Your task to perform on an android device: change keyboard looks Image 0: 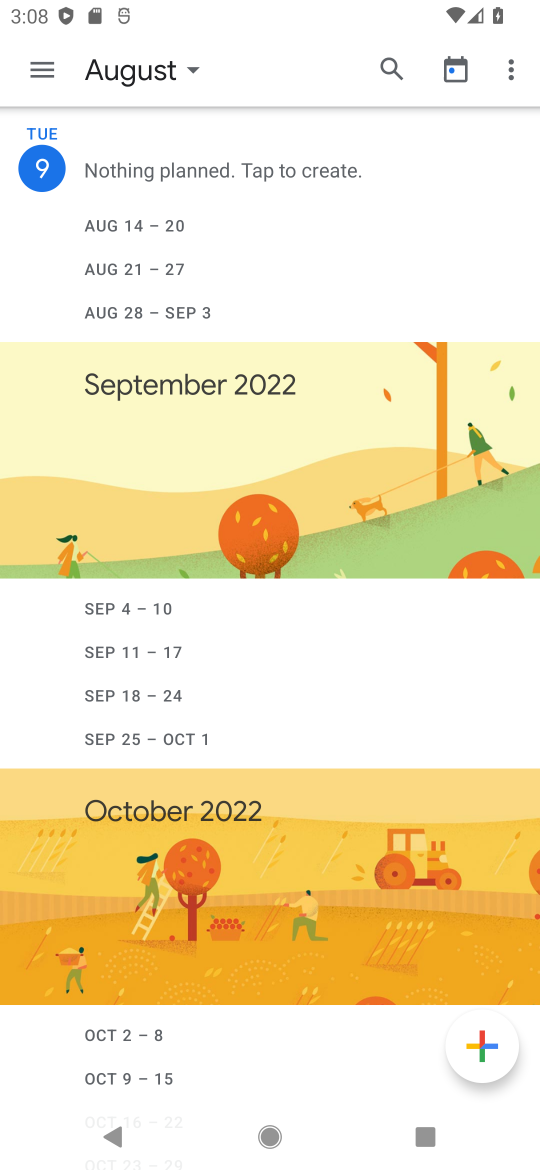
Step 0: press back button
Your task to perform on an android device: change keyboard looks Image 1: 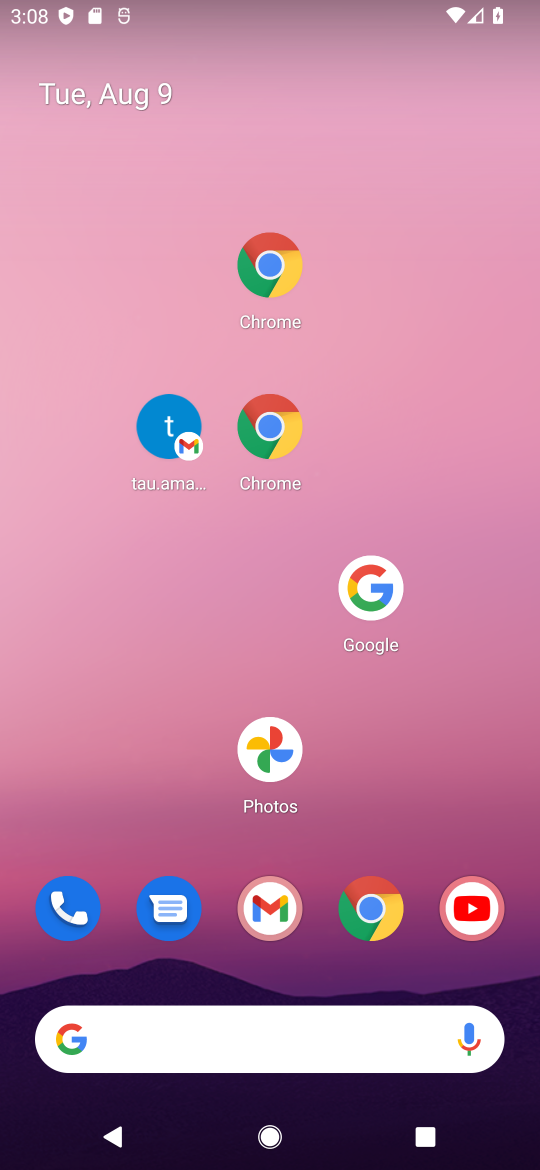
Step 1: drag from (370, 1024) to (220, 284)
Your task to perform on an android device: change keyboard looks Image 2: 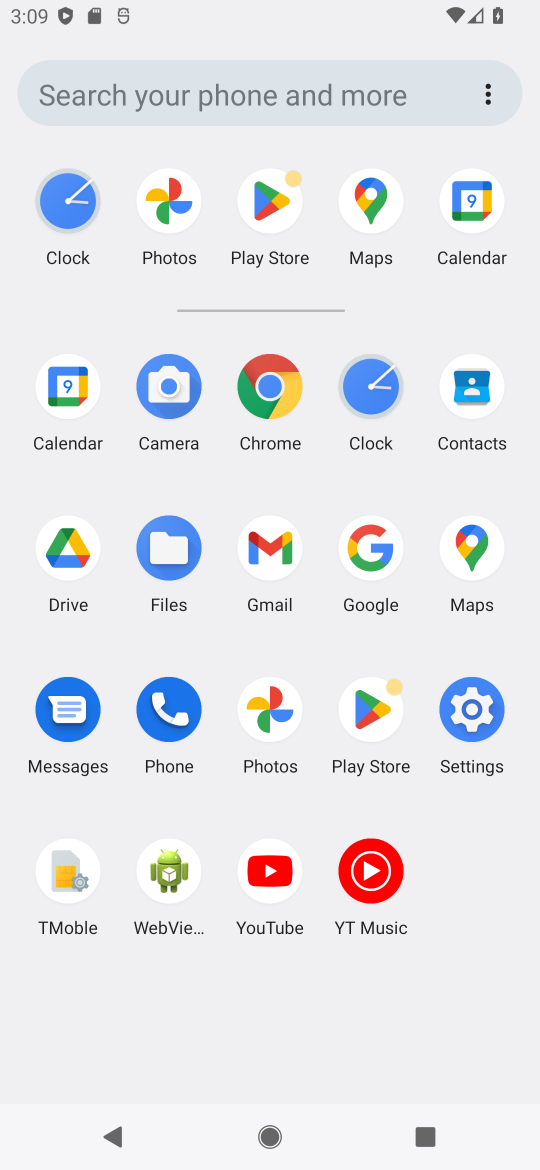
Step 2: click (466, 708)
Your task to perform on an android device: change keyboard looks Image 3: 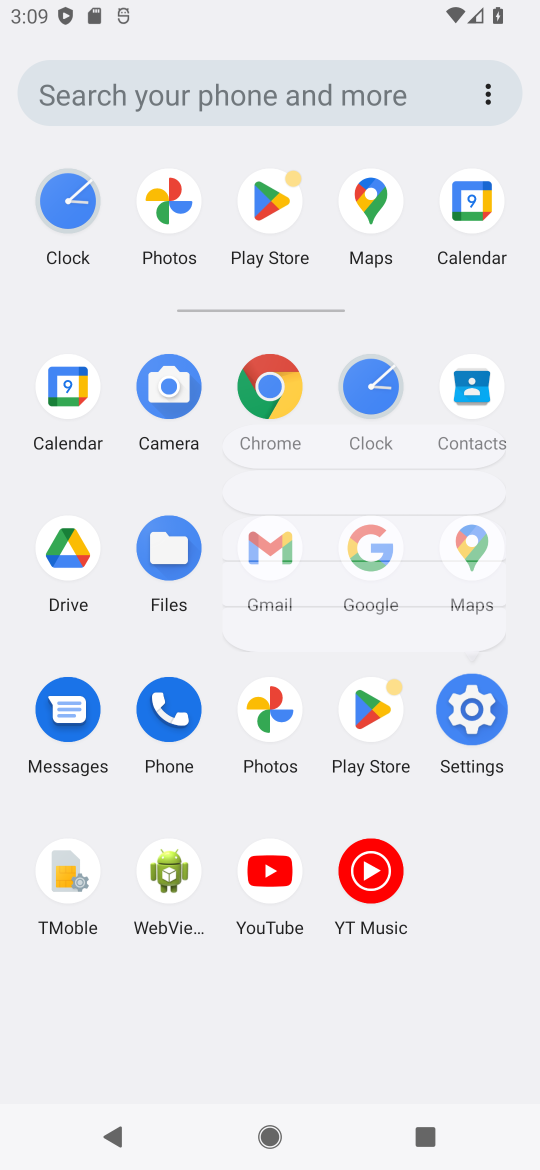
Step 3: click (466, 708)
Your task to perform on an android device: change keyboard looks Image 4: 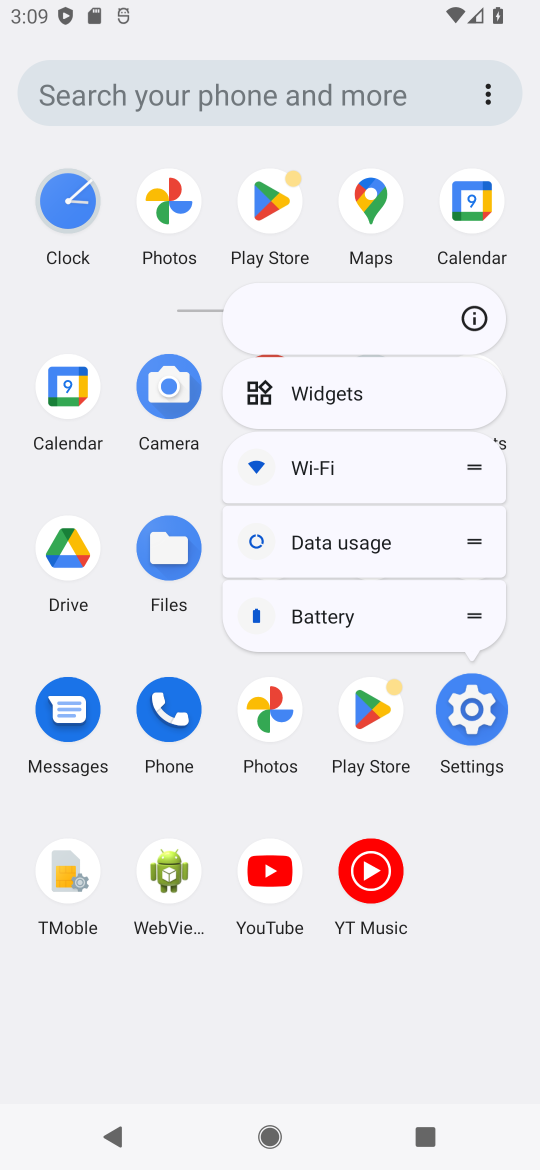
Step 4: click (466, 708)
Your task to perform on an android device: change keyboard looks Image 5: 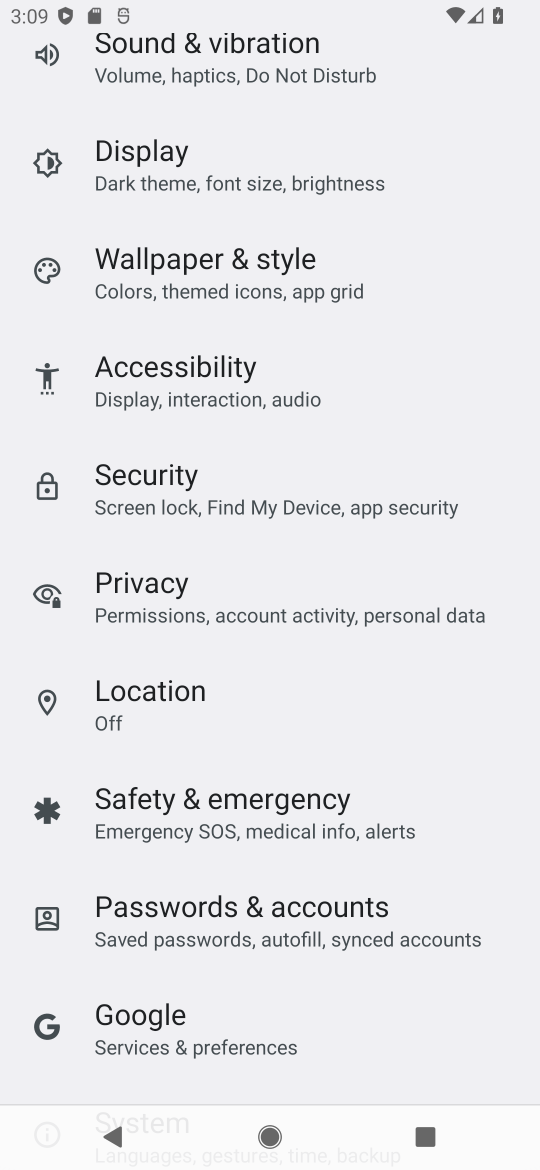
Step 5: click (466, 708)
Your task to perform on an android device: change keyboard looks Image 6: 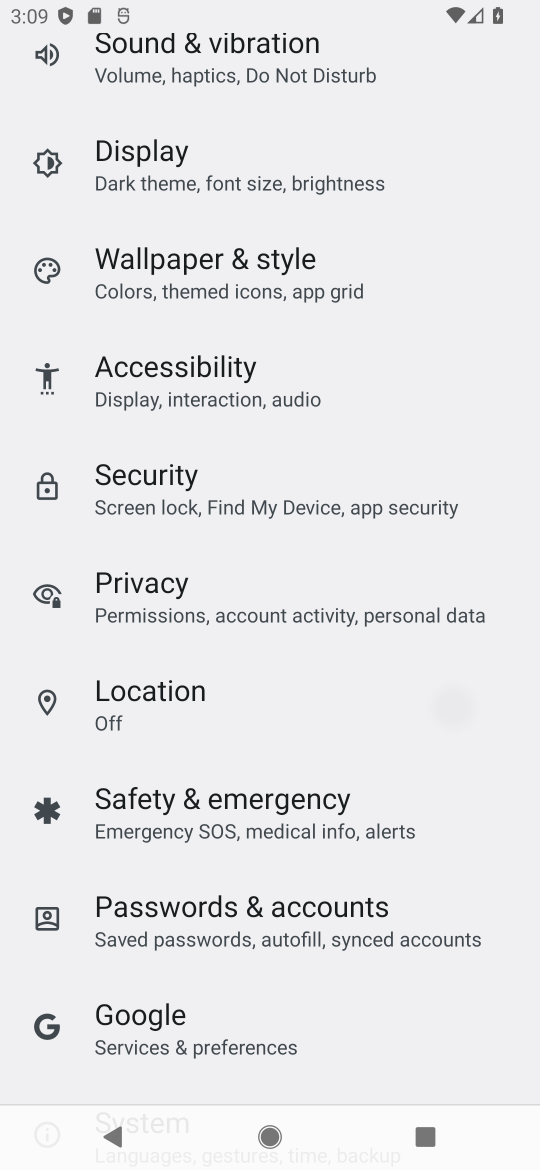
Step 6: click (466, 708)
Your task to perform on an android device: change keyboard looks Image 7: 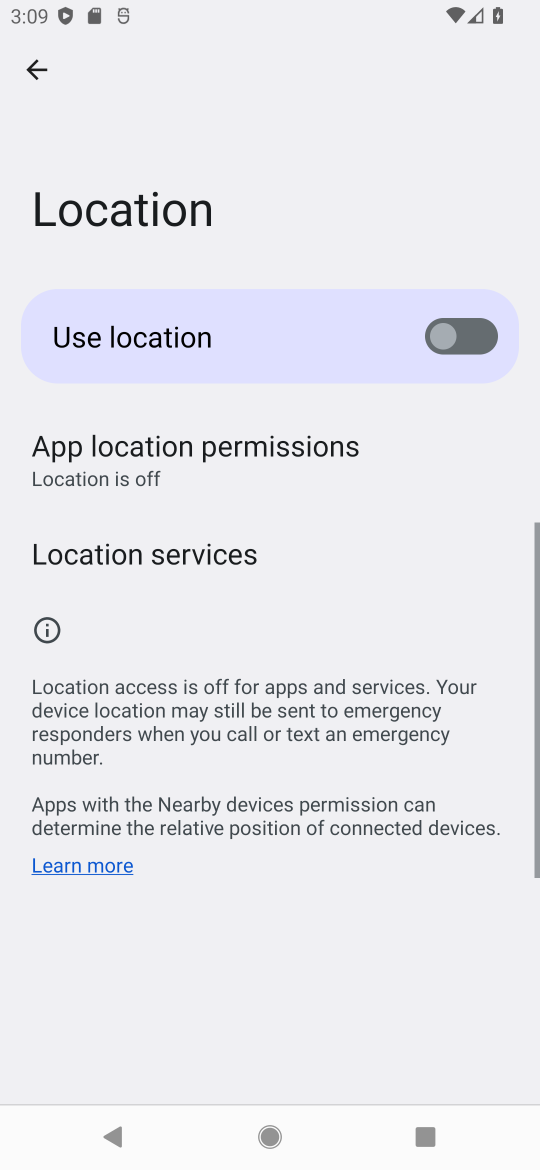
Step 7: drag from (269, 779) to (187, 312)
Your task to perform on an android device: change keyboard looks Image 8: 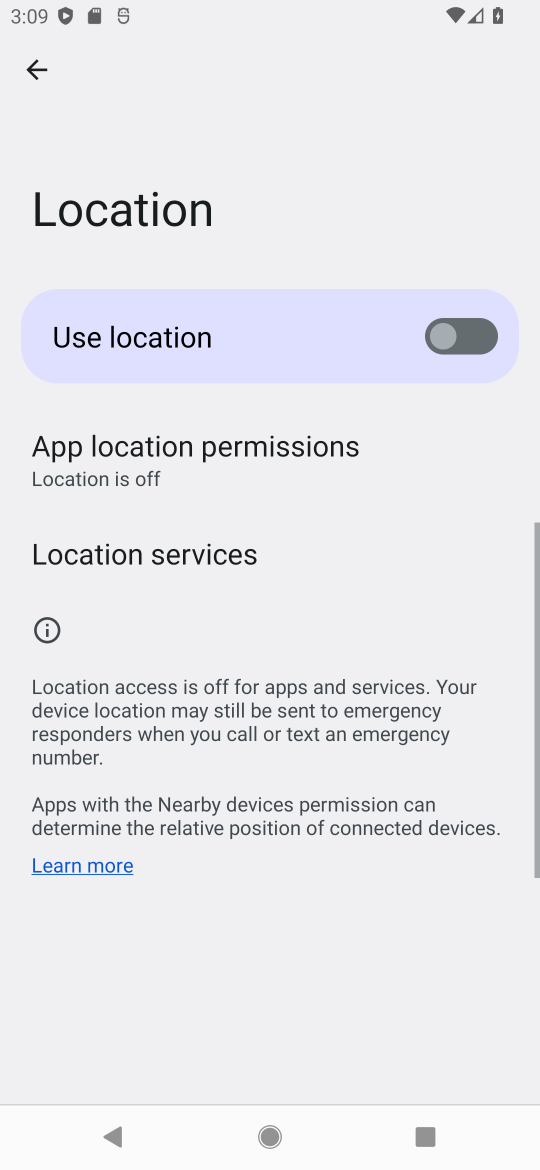
Step 8: click (19, 65)
Your task to perform on an android device: change keyboard looks Image 9: 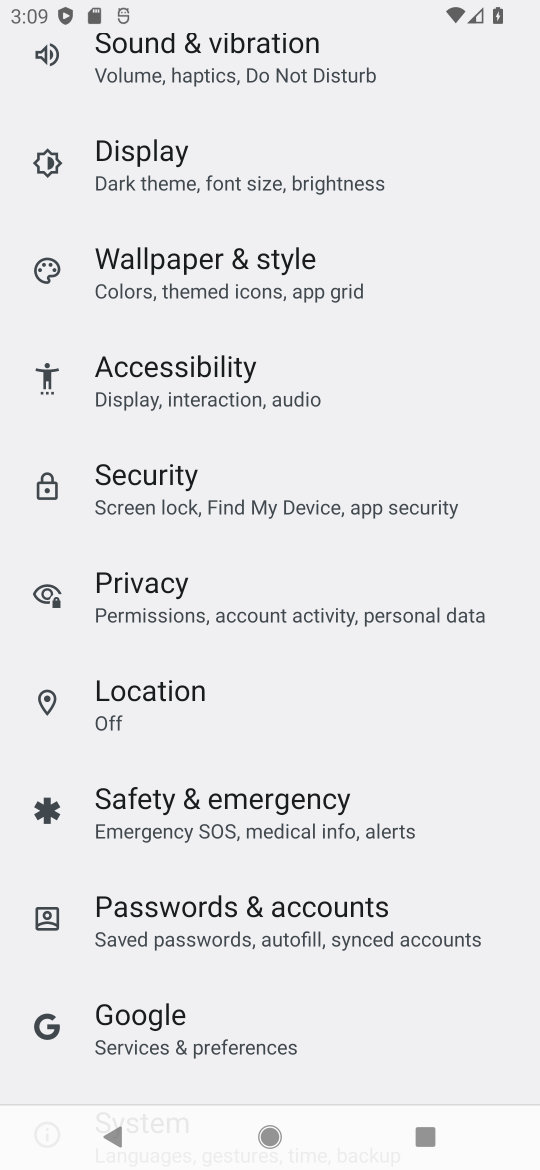
Step 9: drag from (239, 782) to (235, 336)
Your task to perform on an android device: change keyboard looks Image 10: 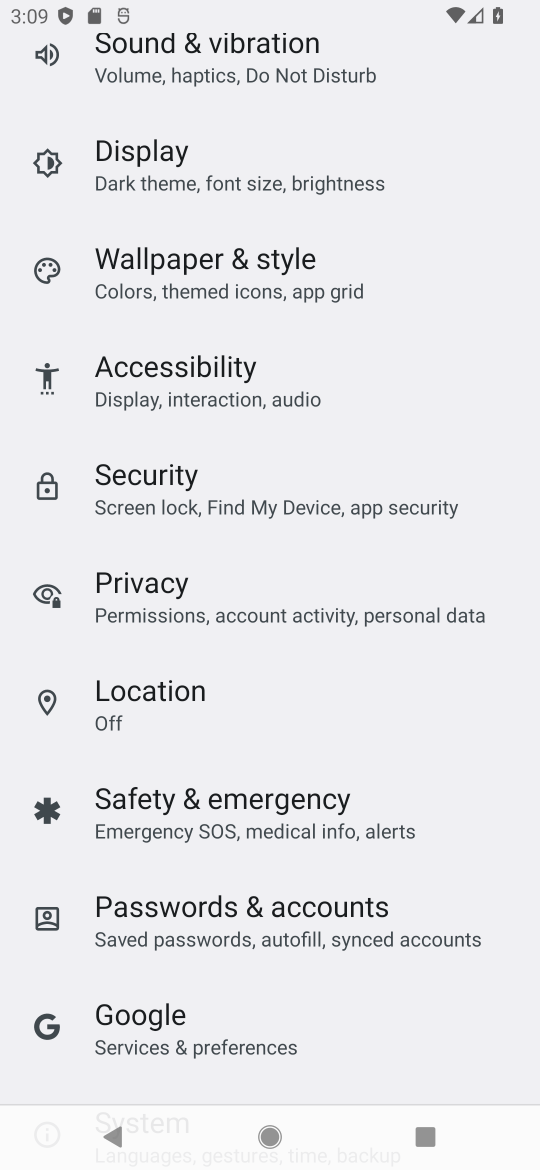
Step 10: drag from (271, 570) to (271, 390)
Your task to perform on an android device: change keyboard looks Image 11: 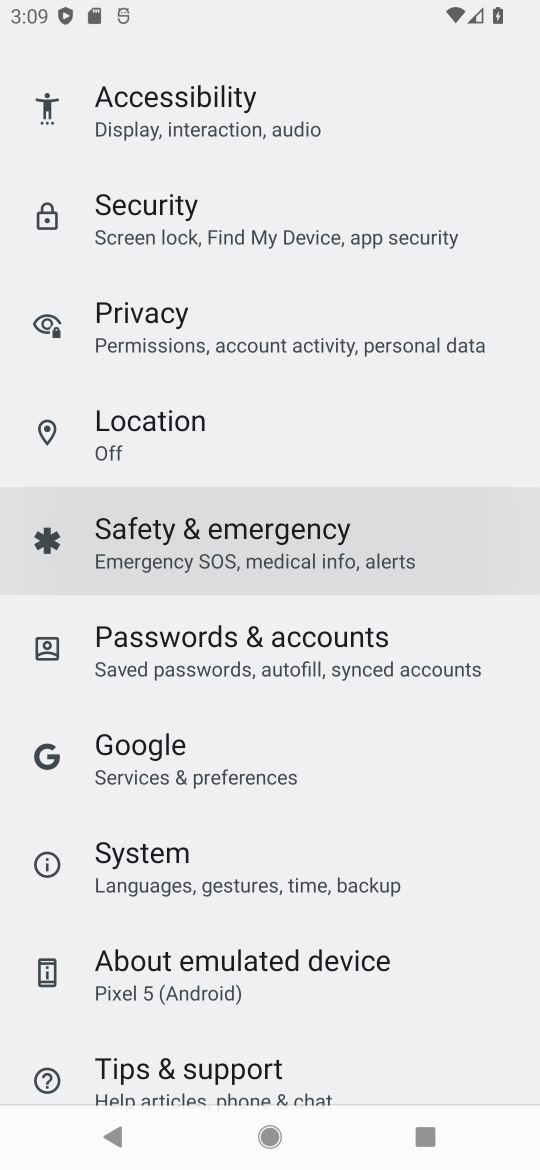
Step 11: drag from (288, 484) to (288, 355)
Your task to perform on an android device: change keyboard looks Image 12: 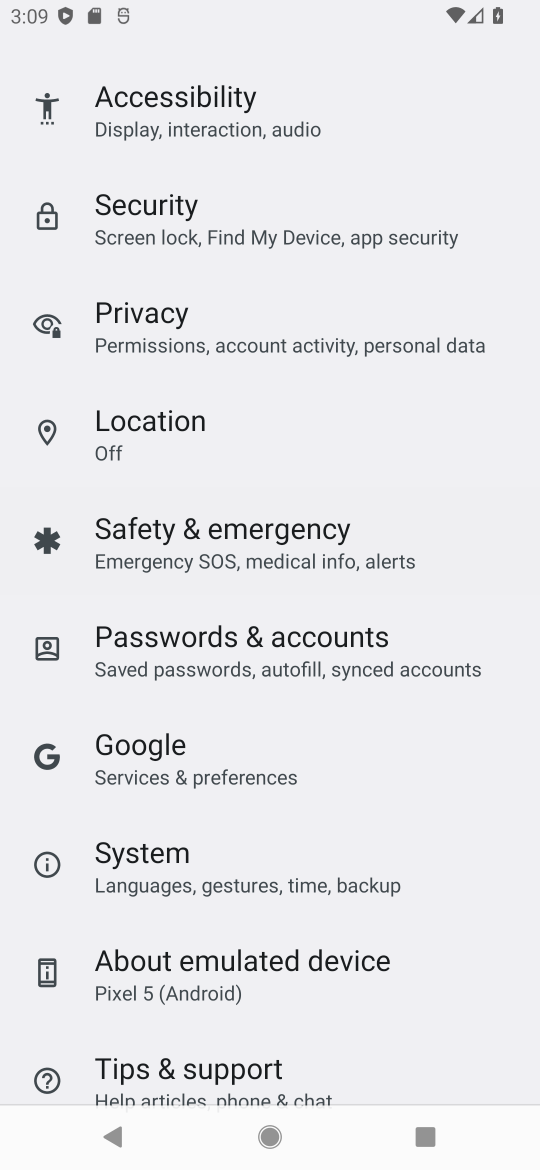
Step 12: drag from (288, 930) to (239, 498)
Your task to perform on an android device: change keyboard looks Image 13: 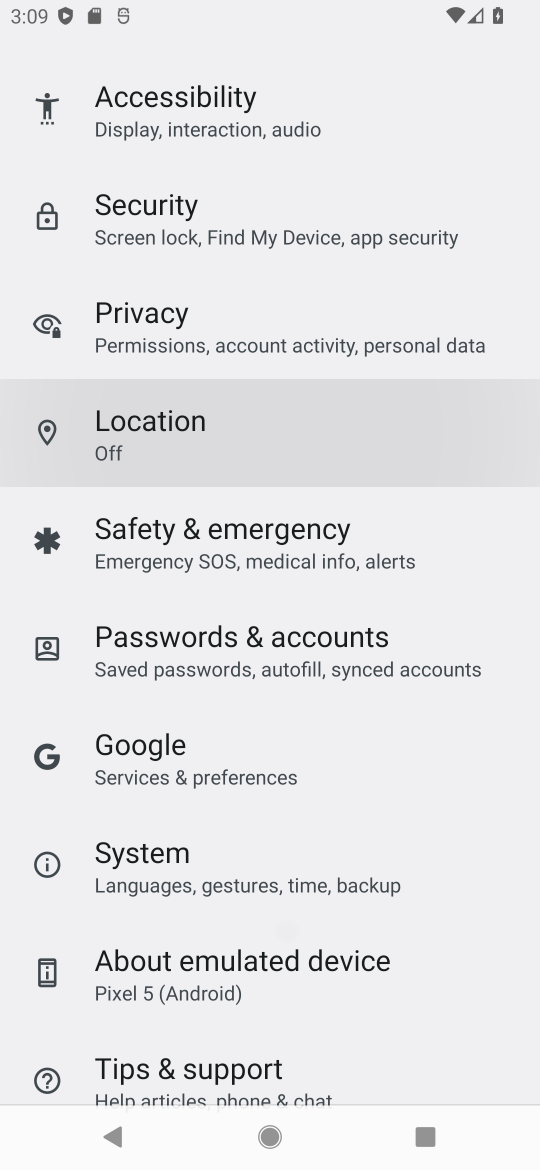
Step 13: drag from (236, 667) to (282, 373)
Your task to perform on an android device: change keyboard looks Image 14: 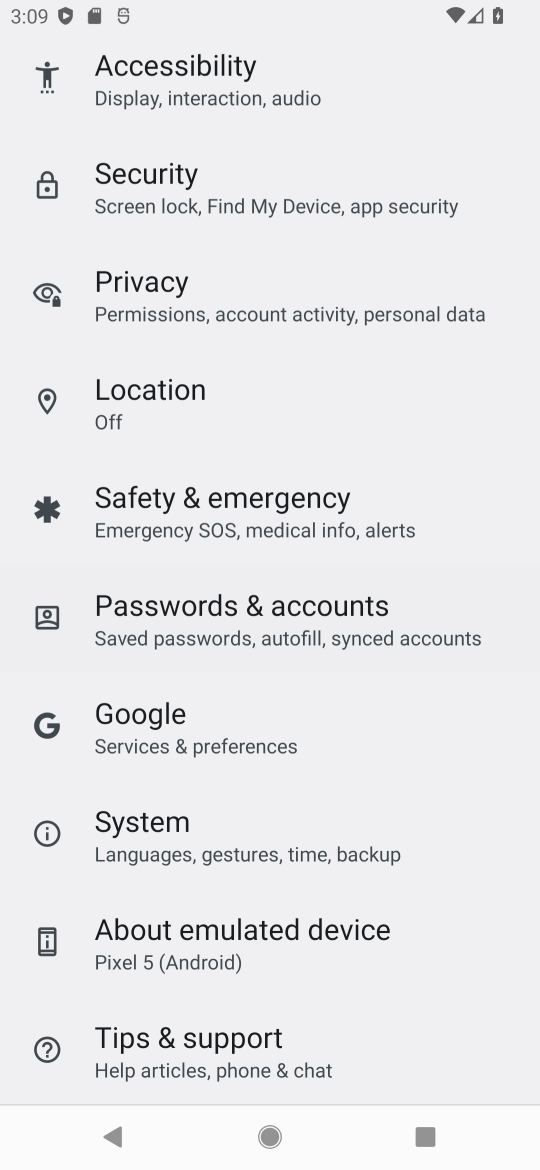
Step 14: drag from (274, 393) to (275, 328)
Your task to perform on an android device: change keyboard looks Image 15: 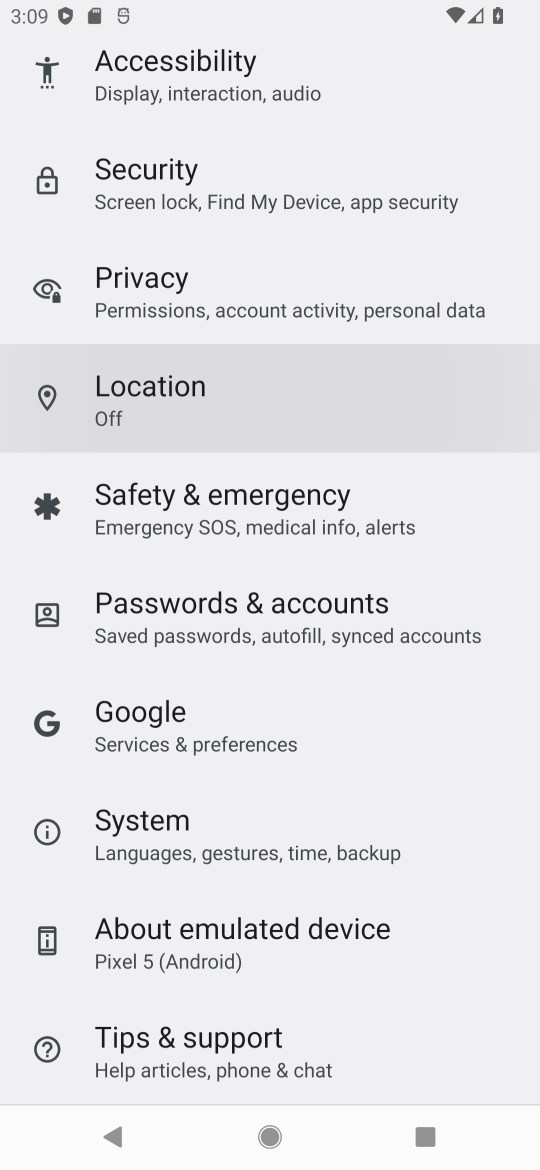
Step 15: drag from (312, 641) to (250, 219)
Your task to perform on an android device: change keyboard looks Image 16: 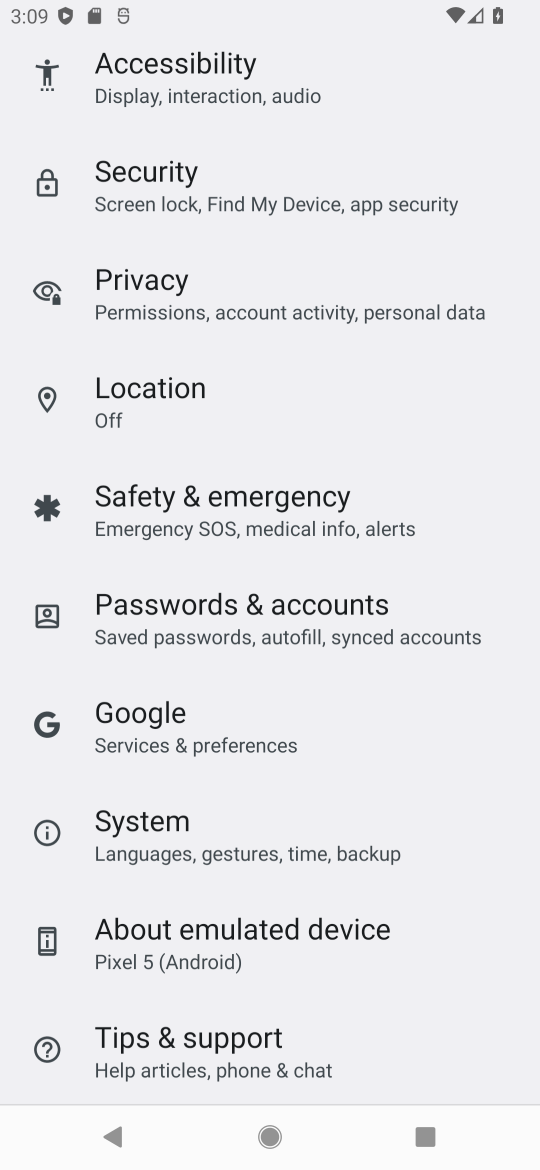
Step 16: drag from (166, 735) to (152, 485)
Your task to perform on an android device: change keyboard looks Image 17: 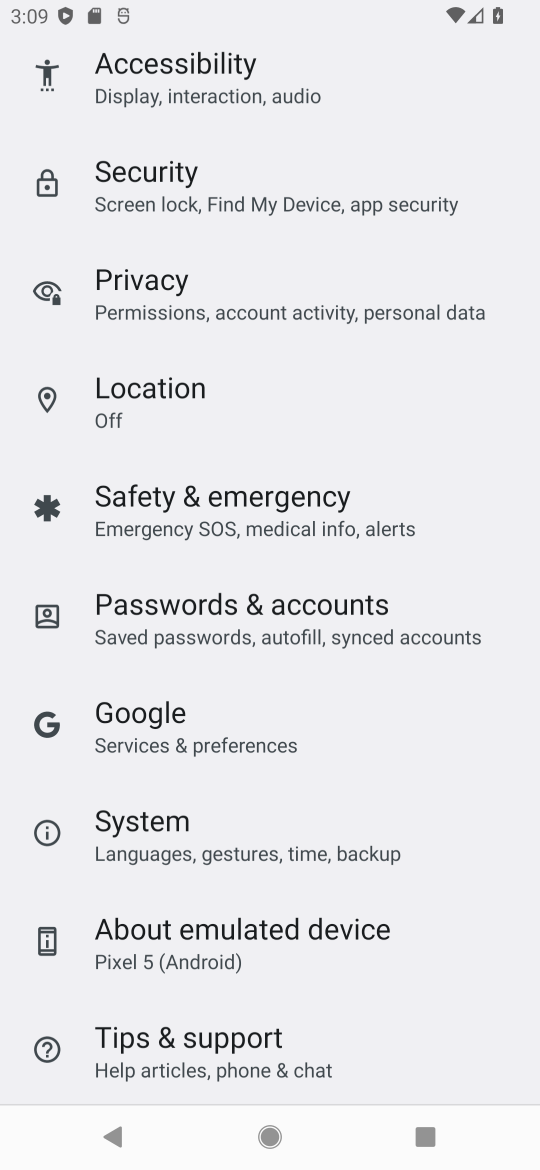
Step 17: drag from (223, 662) to (223, 521)
Your task to perform on an android device: change keyboard looks Image 18: 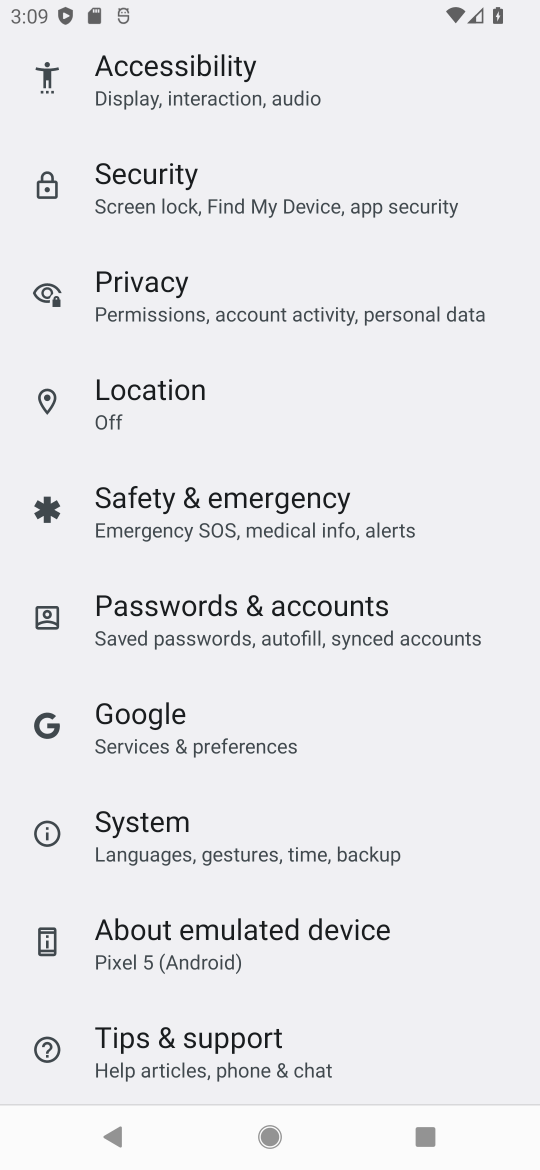
Step 18: drag from (252, 221) to (304, 902)
Your task to perform on an android device: change keyboard looks Image 19: 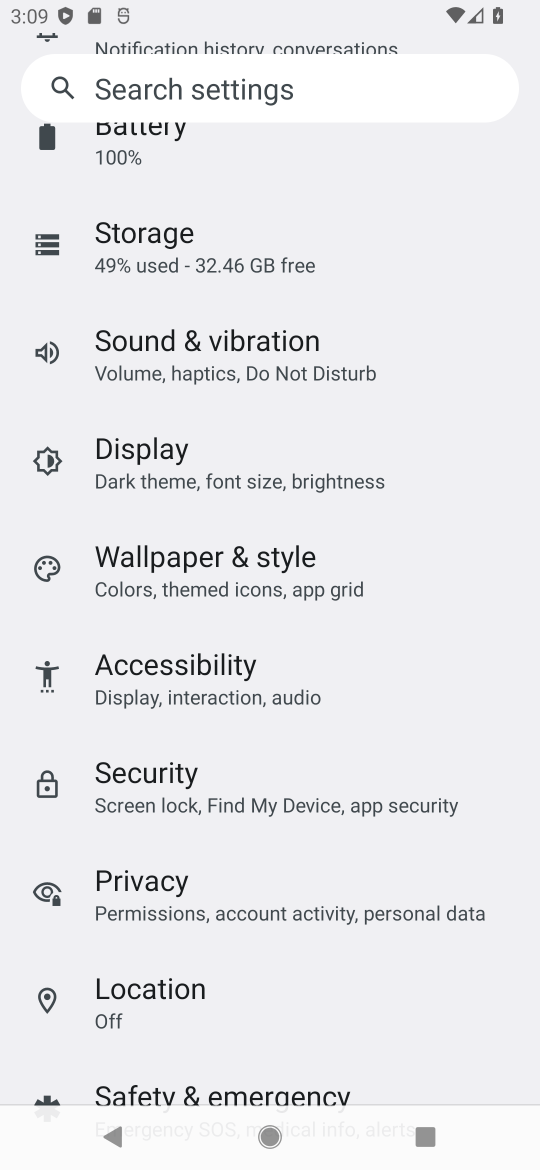
Step 19: drag from (235, 697) to (211, 477)
Your task to perform on an android device: change keyboard looks Image 20: 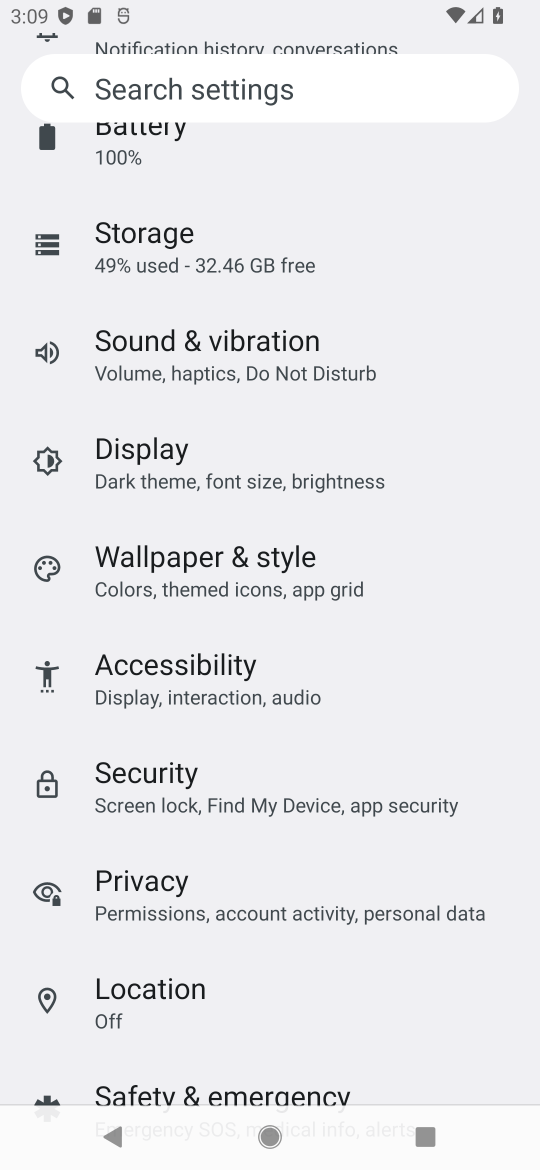
Step 20: drag from (301, 702) to (320, 518)
Your task to perform on an android device: change keyboard looks Image 21: 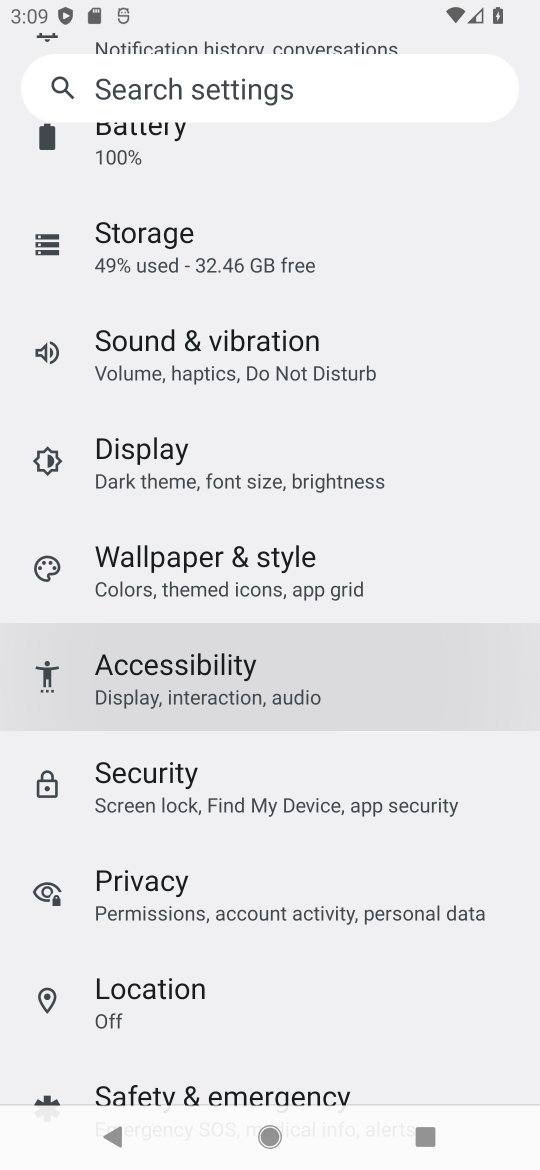
Step 21: drag from (309, 657) to (254, 140)
Your task to perform on an android device: change keyboard looks Image 22: 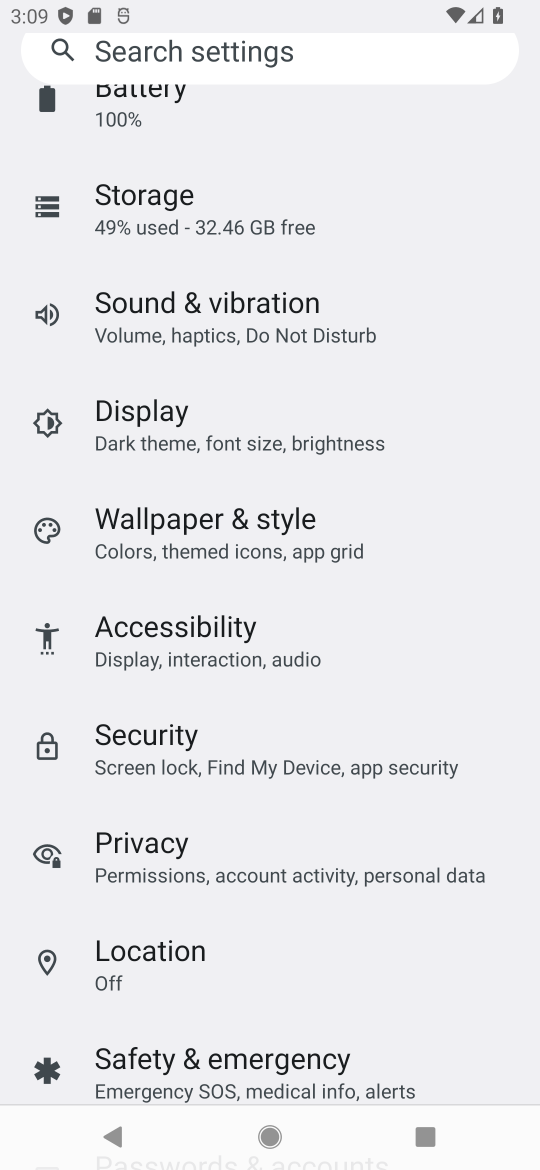
Step 22: drag from (230, 880) to (198, 287)
Your task to perform on an android device: change keyboard looks Image 23: 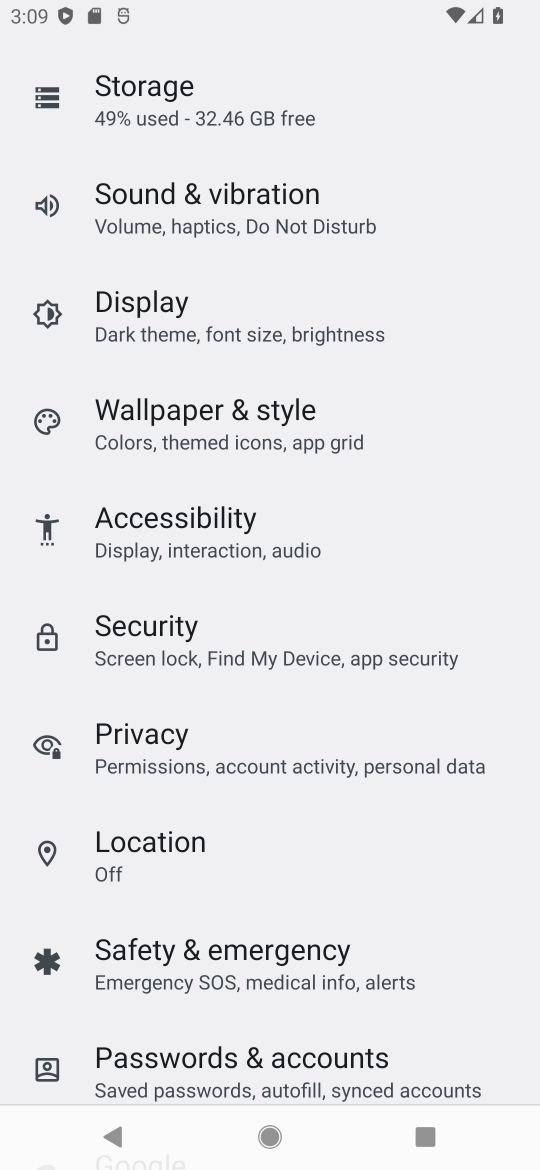
Step 23: drag from (270, 924) to (324, 263)
Your task to perform on an android device: change keyboard looks Image 24: 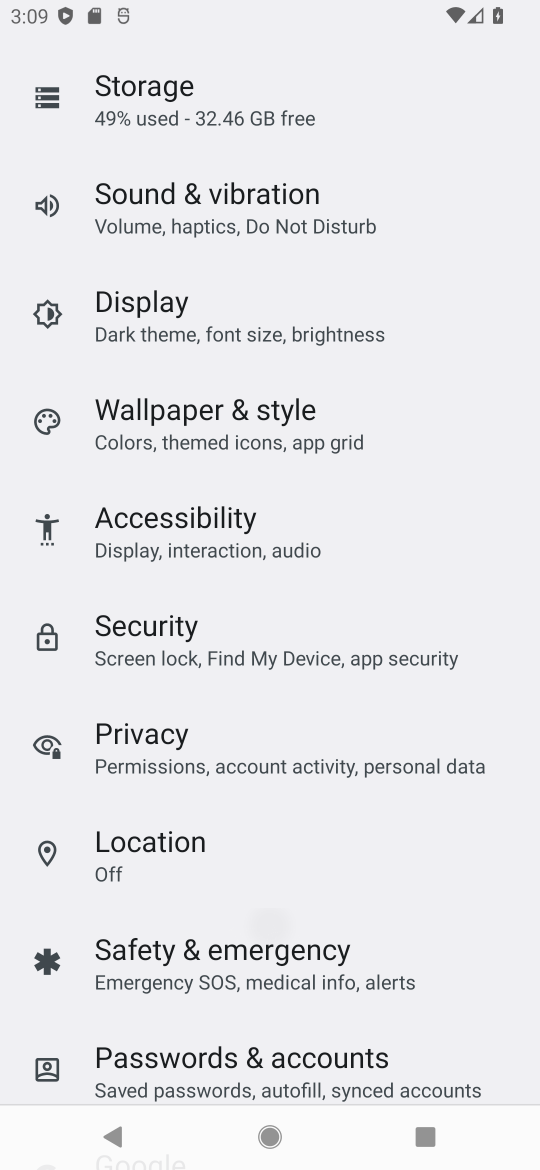
Step 24: drag from (254, 736) to (259, 82)
Your task to perform on an android device: change keyboard looks Image 25: 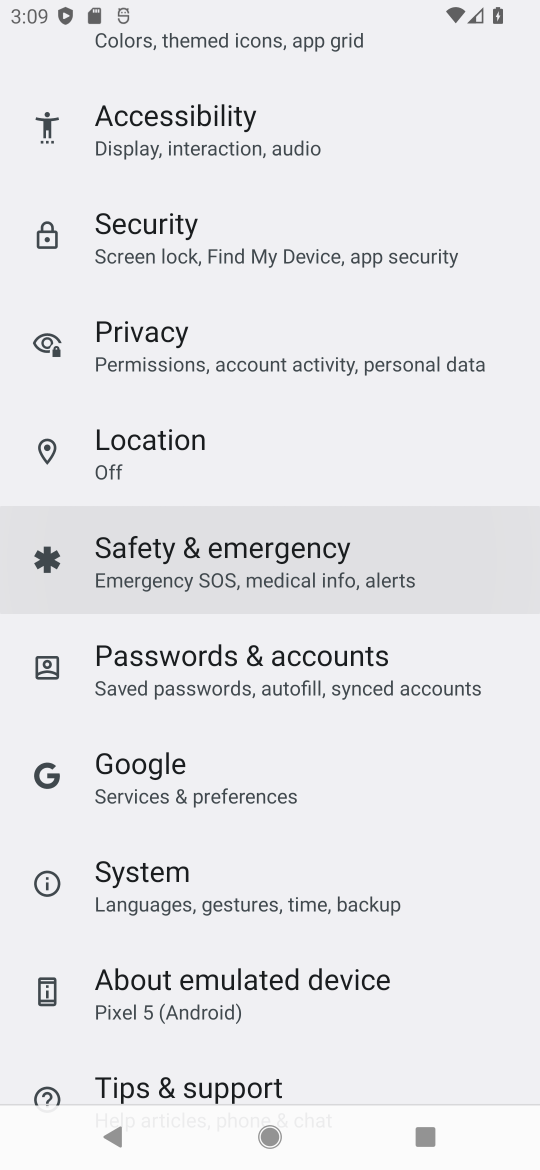
Step 25: drag from (358, 719) to (323, 90)
Your task to perform on an android device: change keyboard looks Image 26: 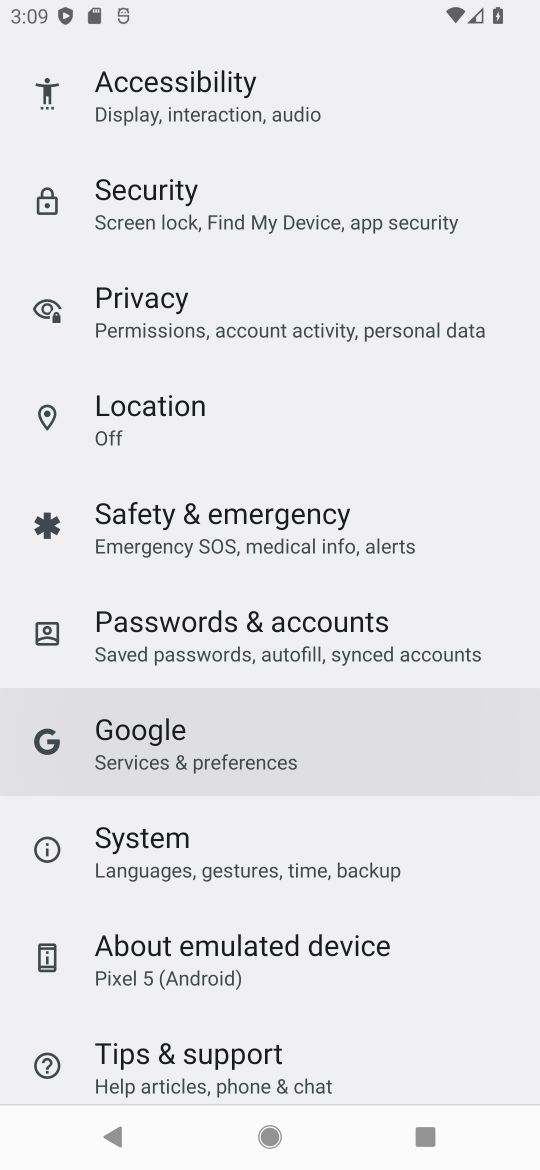
Step 26: drag from (347, 592) to (297, 94)
Your task to perform on an android device: change keyboard looks Image 27: 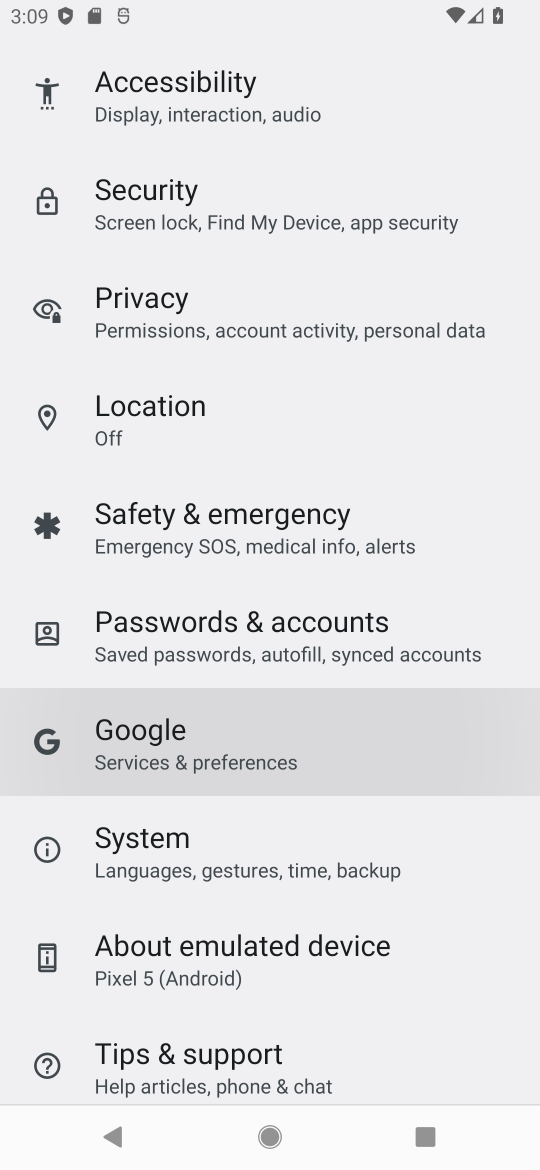
Step 27: drag from (334, 924) to (295, 279)
Your task to perform on an android device: change keyboard looks Image 28: 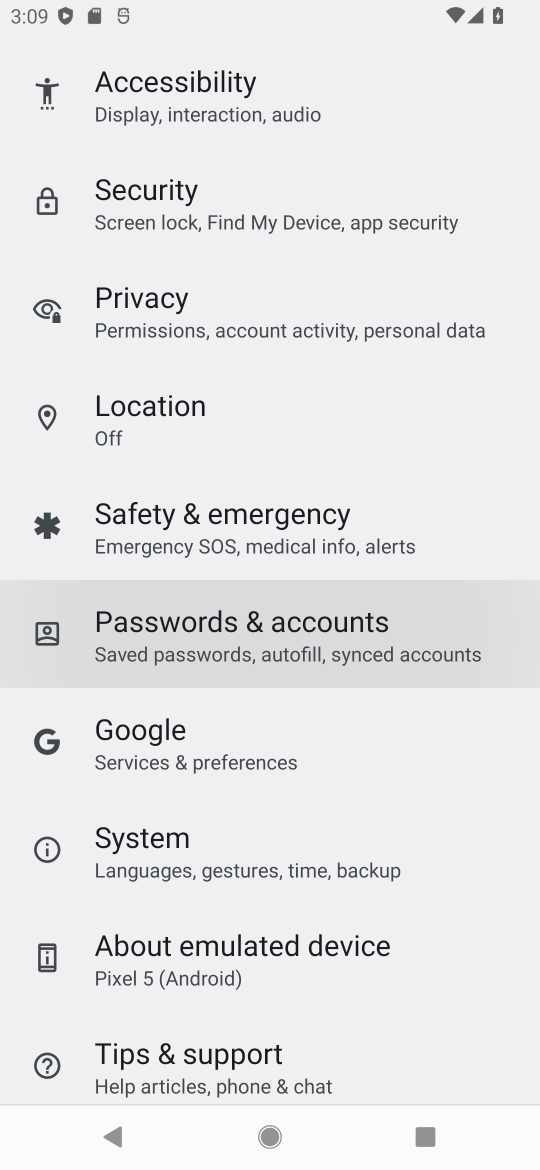
Step 28: drag from (295, 954) to (207, 299)
Your task to perform on an android device: change keyboard looks Image 29: 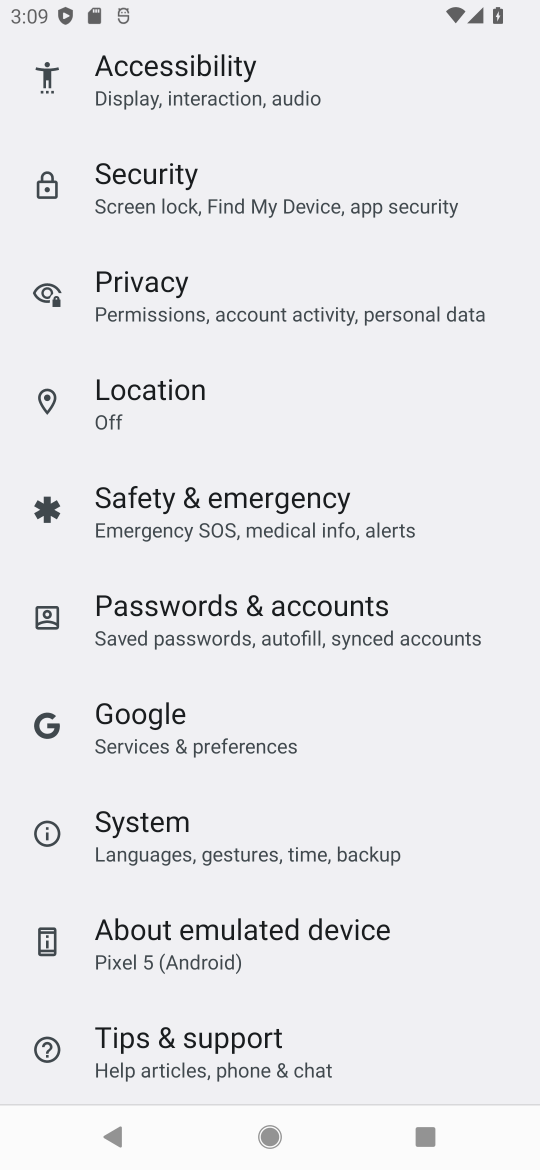
Step 29: click (147, 835)
Your task to perform on an android device: change keyboard looks Image 30: 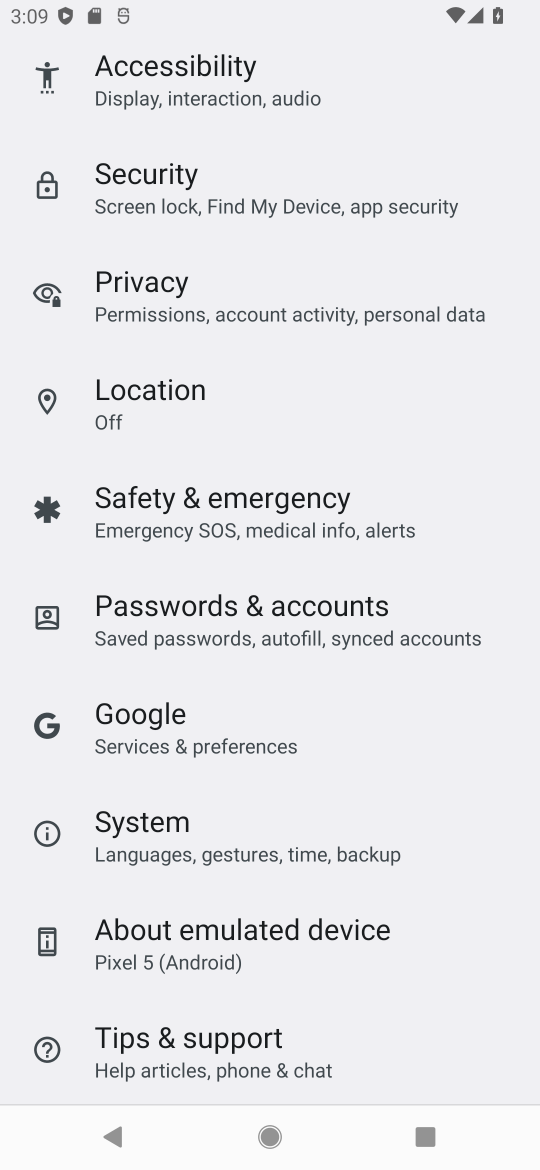
Step 30: click (149, 809)
Your task to perform on an android device: change keyboard looks Image 31: 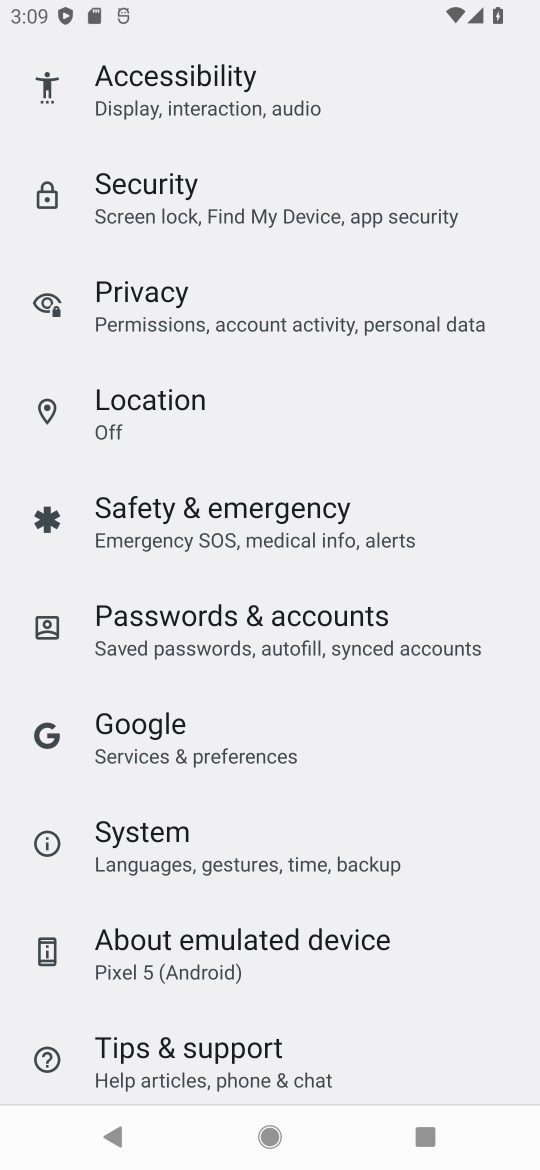
Step 31: click (151, 828)
Your task to perform on an android device: change keyboard looks Image 32: 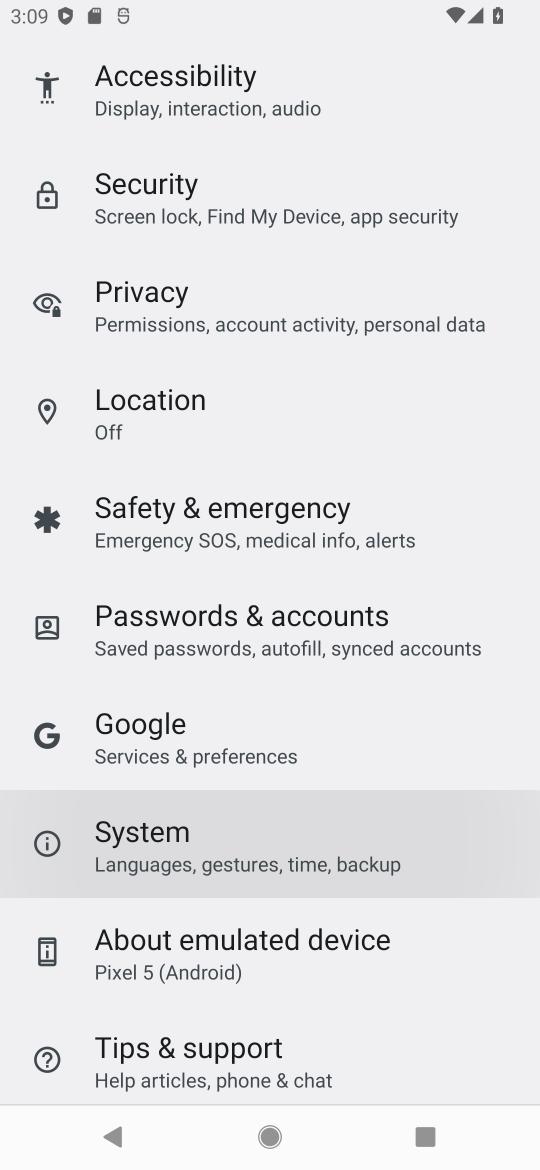
Step 32: click (172, 851)
Your task to perform on an android device: change keyboard looks Image 33: 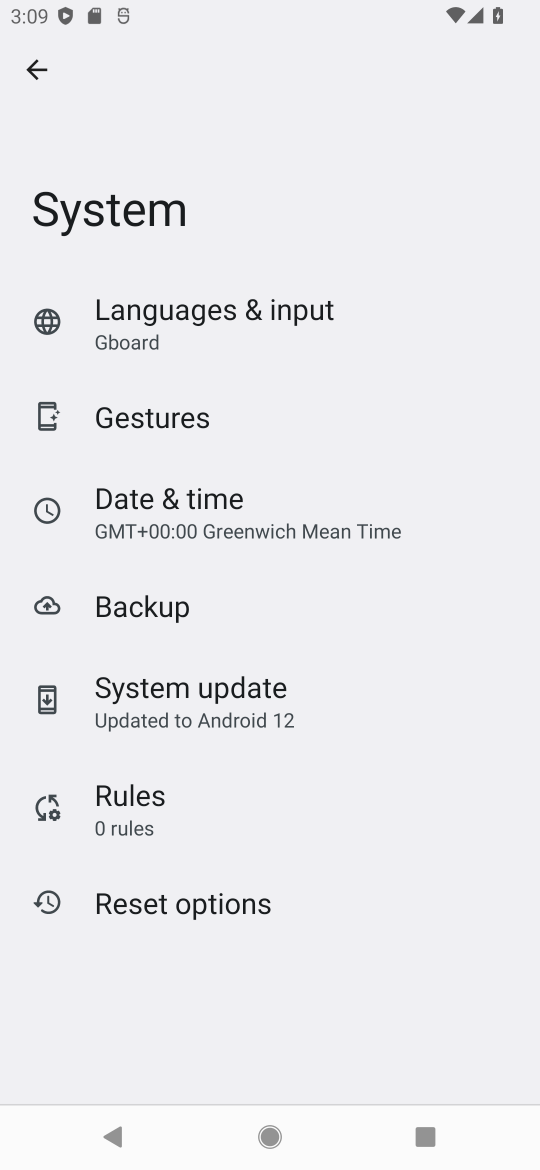
Step 33: click (132, 336)
Your task to perform on an android device: change keyboard looks Image 34: 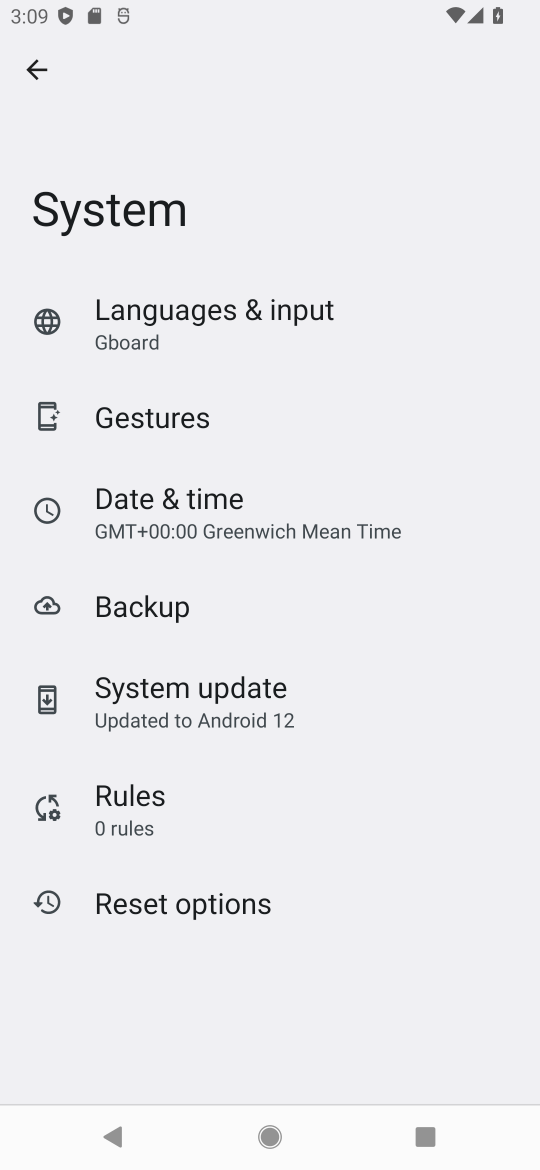
Step 34: click (132, 336)
Your task to perform on an android device: change keyboard looks Image 35: 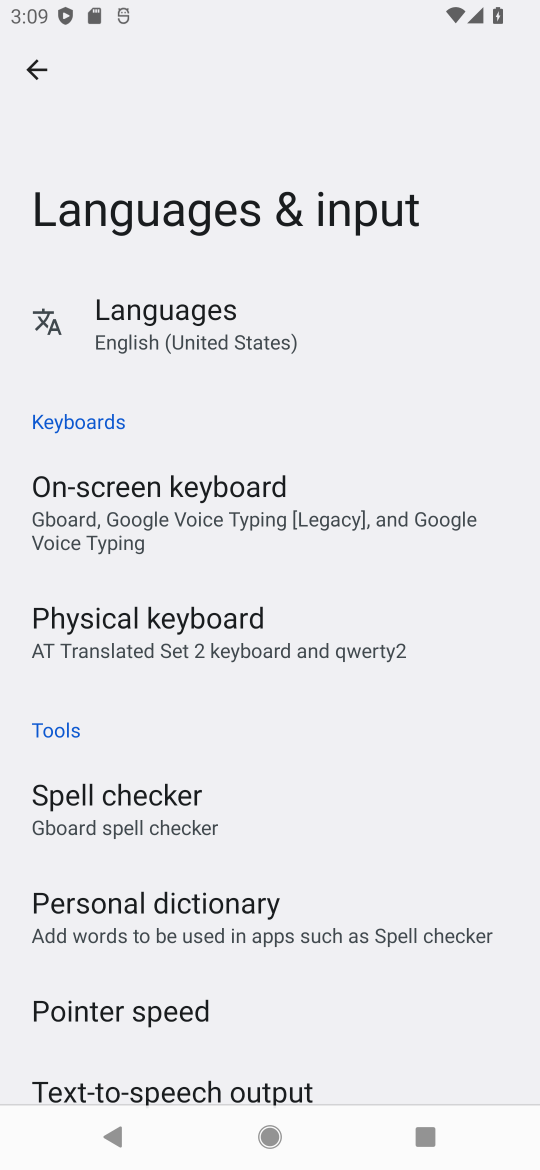
Step 35: click (112, 517)
Your task to perform on an android device: change keyboard looks Image 36: 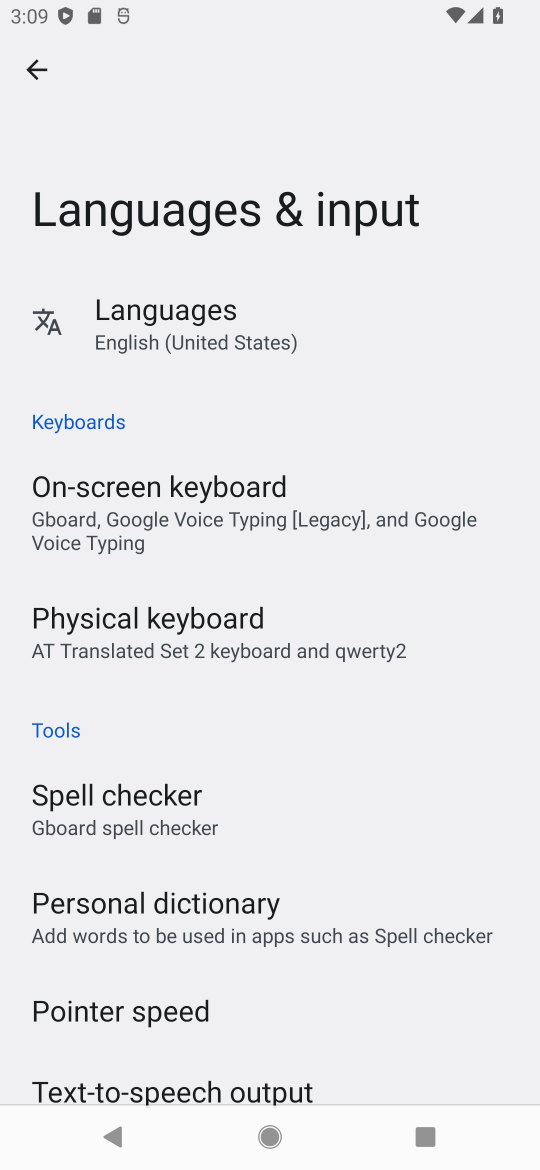
Step 36: click (118, 563)
Your task to perform on an android device: change keyboard looks Image 37: 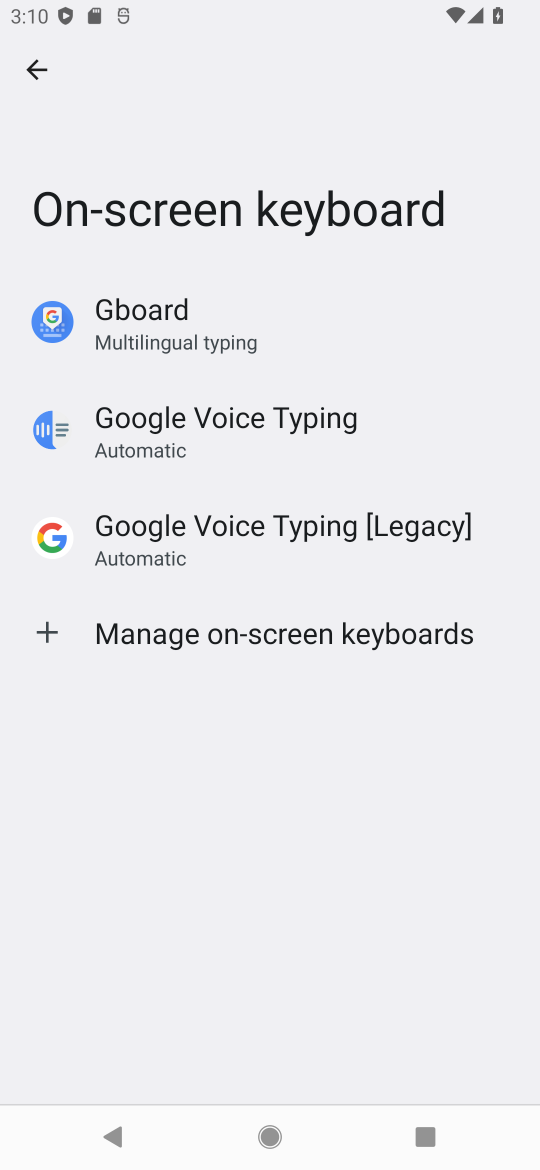
Step 37: click (155, 318)
Your task to perform on an android device: change keyboard looks Image 38: 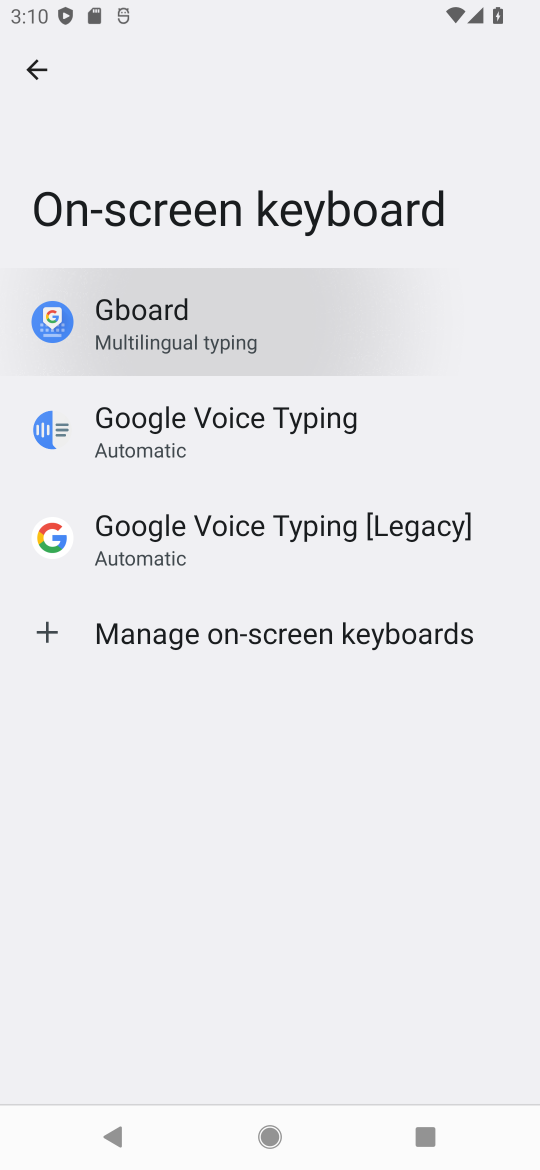
Step 38: click (155, 318)
Your task to perform on an android device: change keyboard looks Image 39: 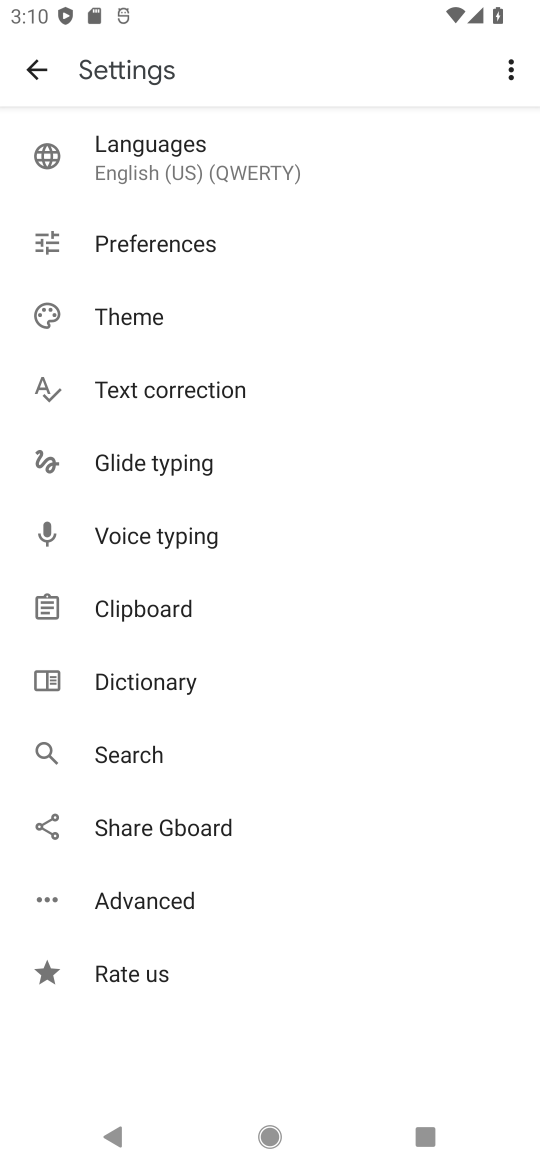
Step 39: click (142, 313)
Your task to perform on an android device: change keyboard looks Image 40: 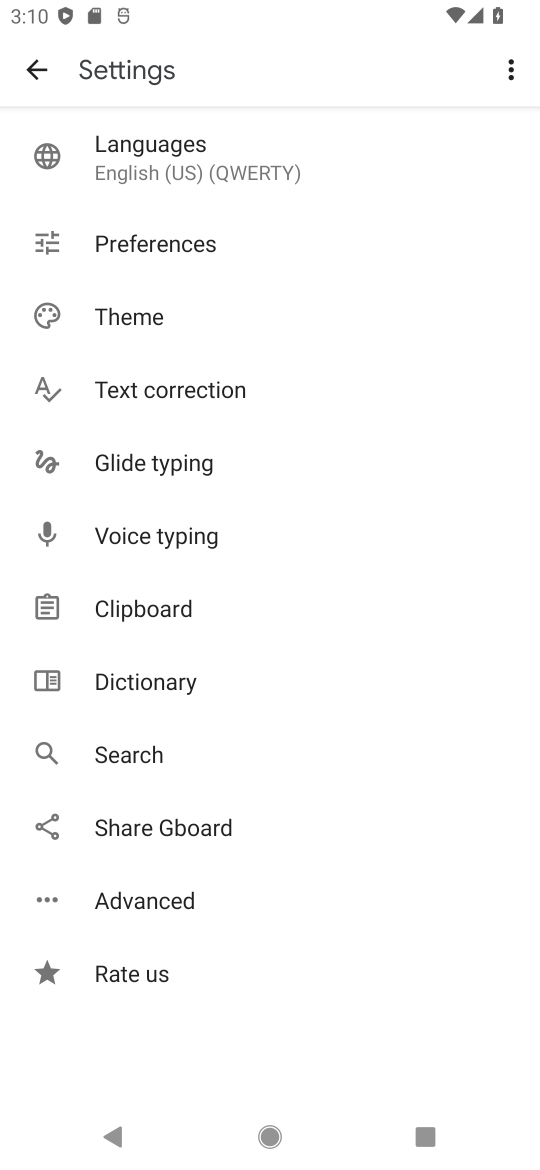
Step 40: click (142, 315)
Your task to perform on an android device: change keyboard looks Image 41: 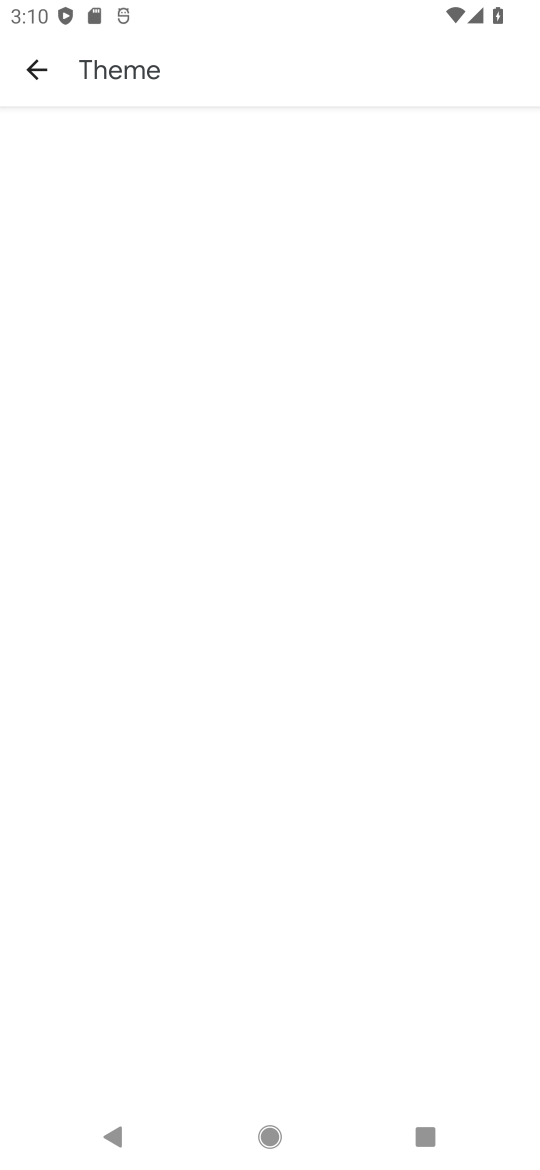
Step 41: click (144, 316)
Your task to perform on an android device: change keyboard looks Image 42: 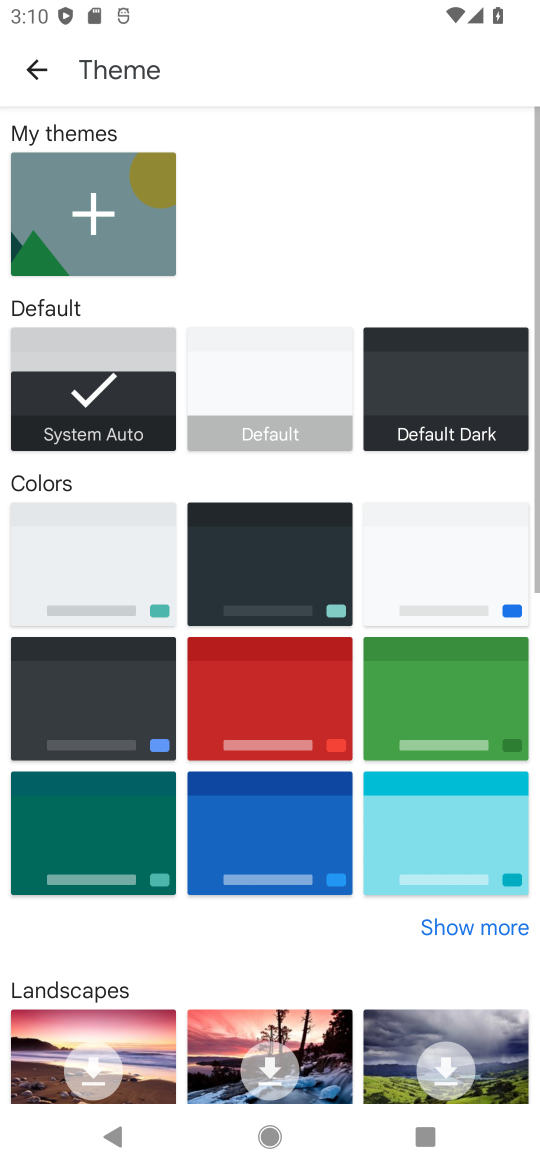
Step 42: click (73, 726)
Your task to perform on an android device: change keyboard looks Image 43: 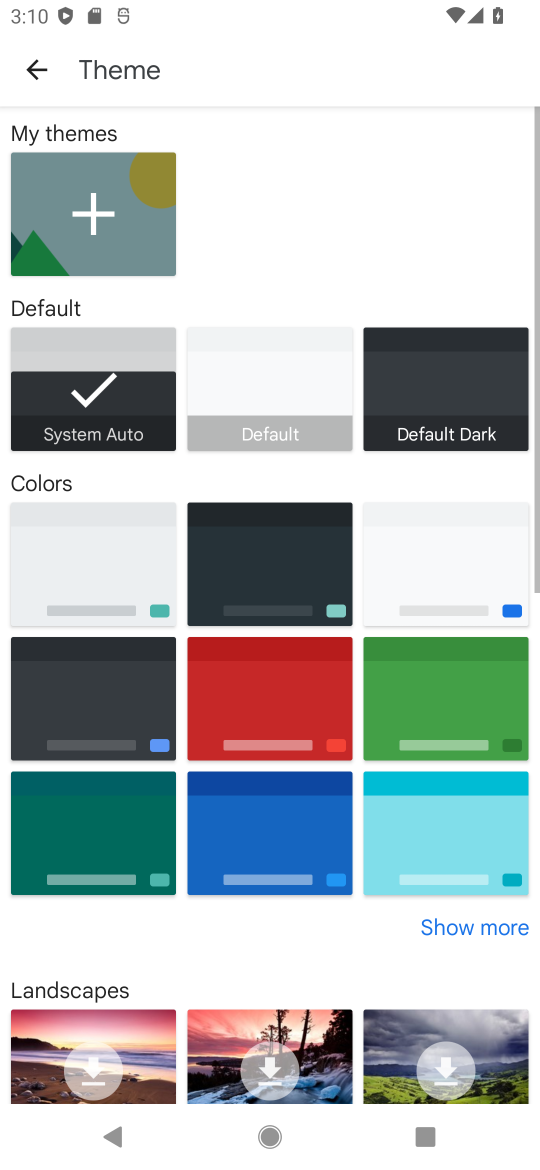
Step 43: click (79, 725)
Your task to perform on an android device: change keyboard looks Image 44: 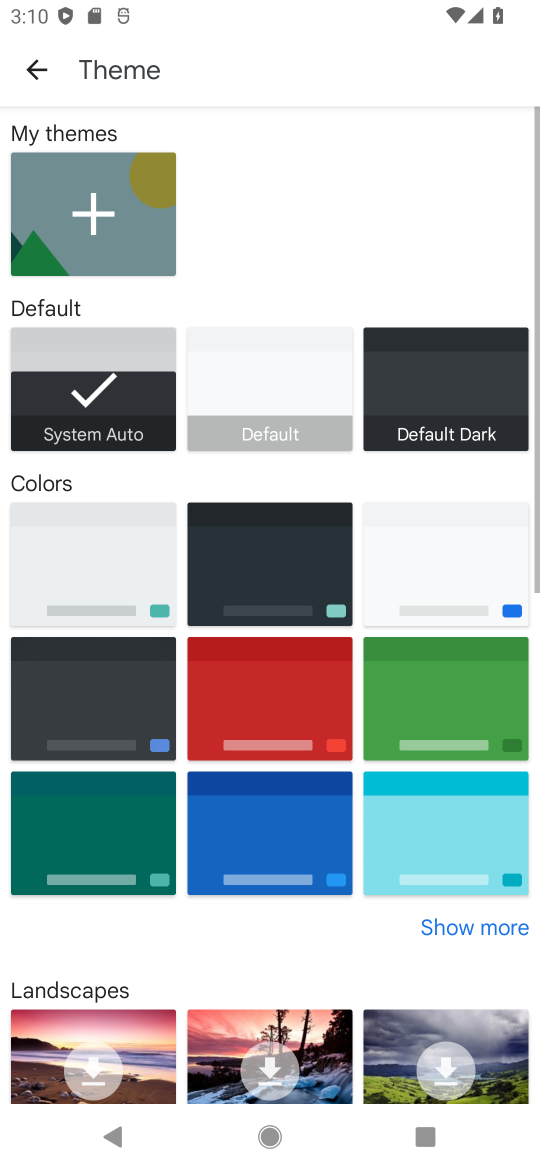
Step 44: click (176, 812)
Your task to perform on an android device: change keyboard looks Image 45: 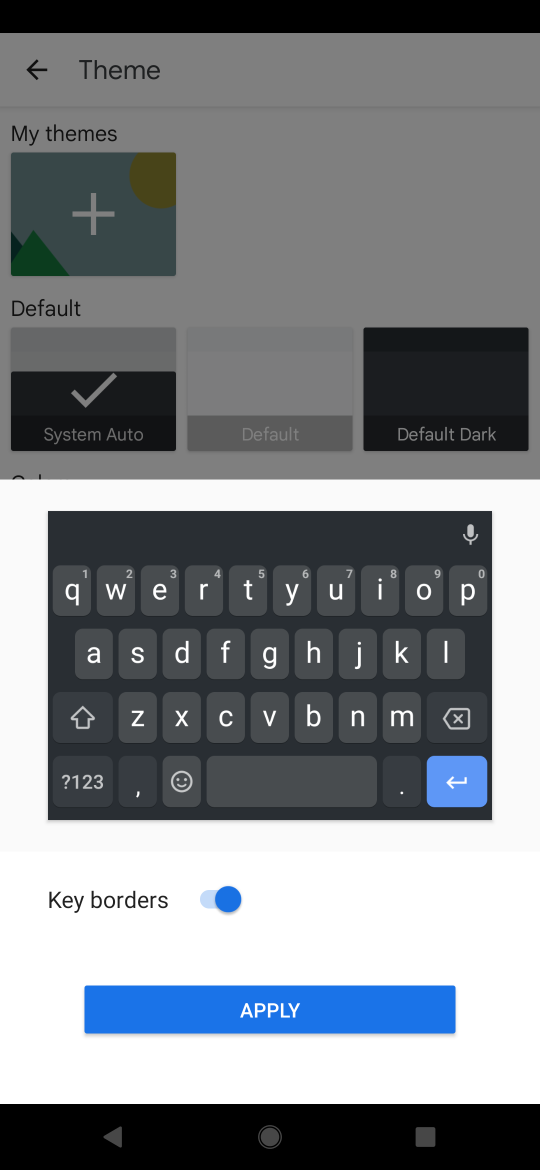
Step 45: click (271, 1008)
Your task to perform on an android device: change keyboard looks Image 46: 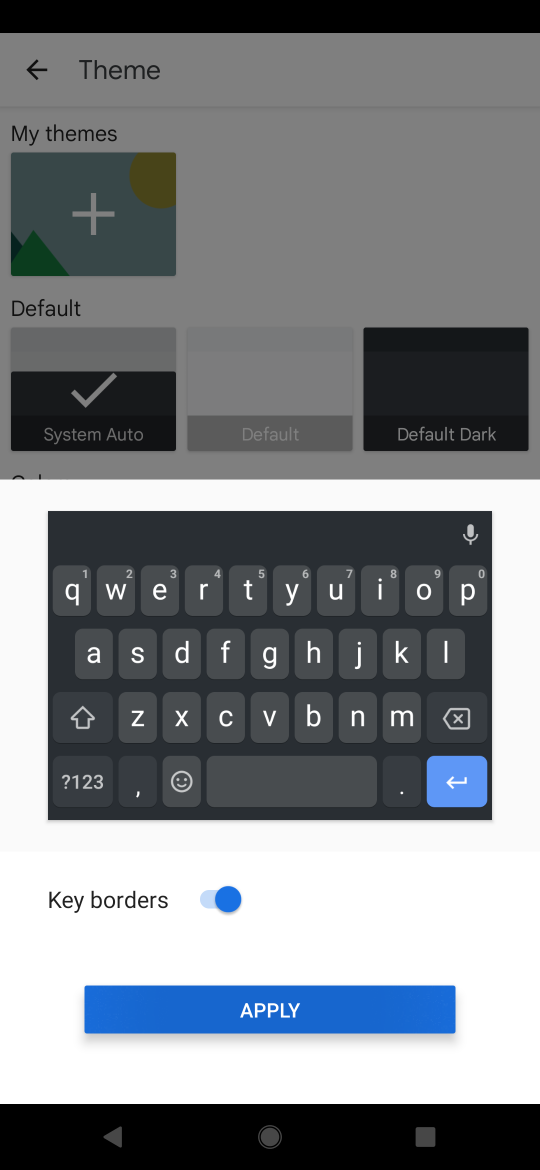
Step 46: task complete